Your task to perform on an android device: Show me recent news Image 0: 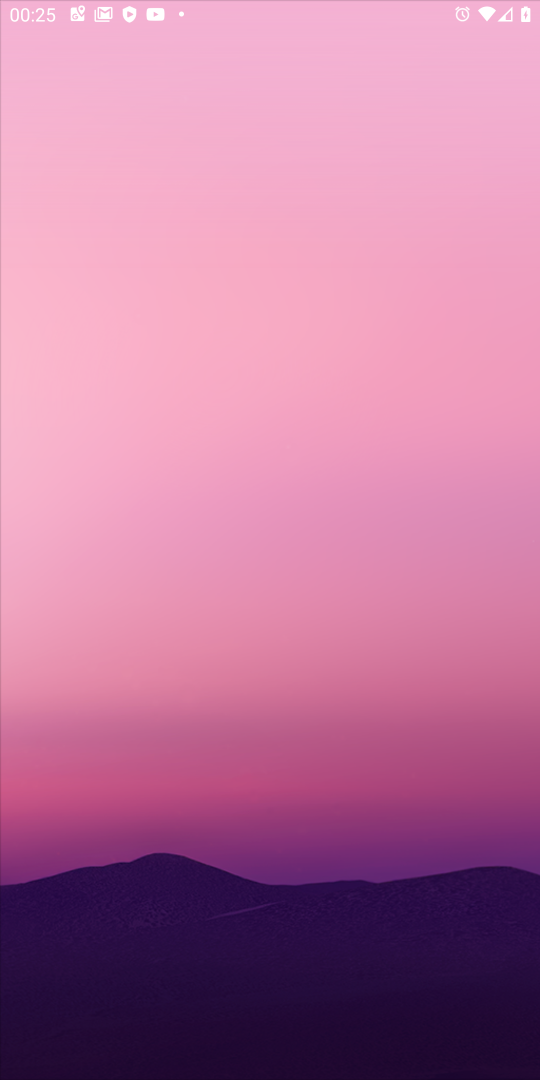
Step 0: press home button
Your task to perform on an android device: Show me recent news Image 1: 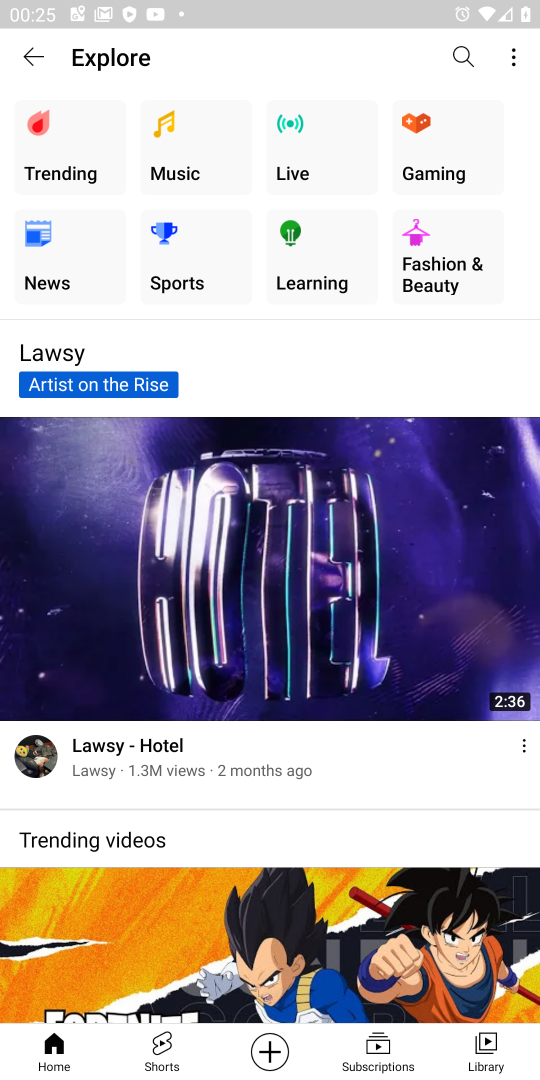
Step 1: press home button
Your task to perform on an android device: Show me recent news Image 2: 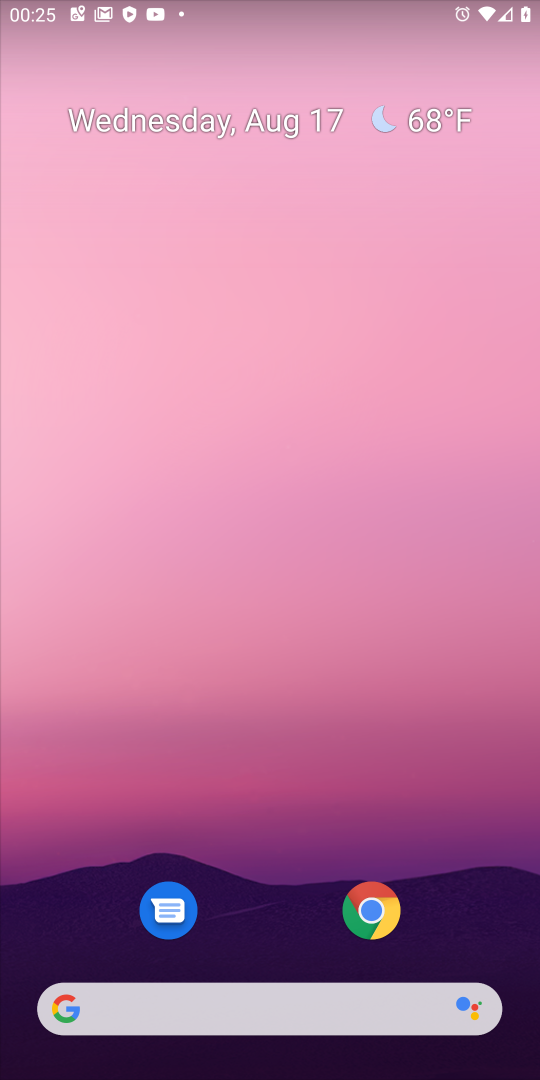
Step 2: drag from (260, 940) to (264, 163)
Your task to perform on an android device: Show me recent news Image 3: 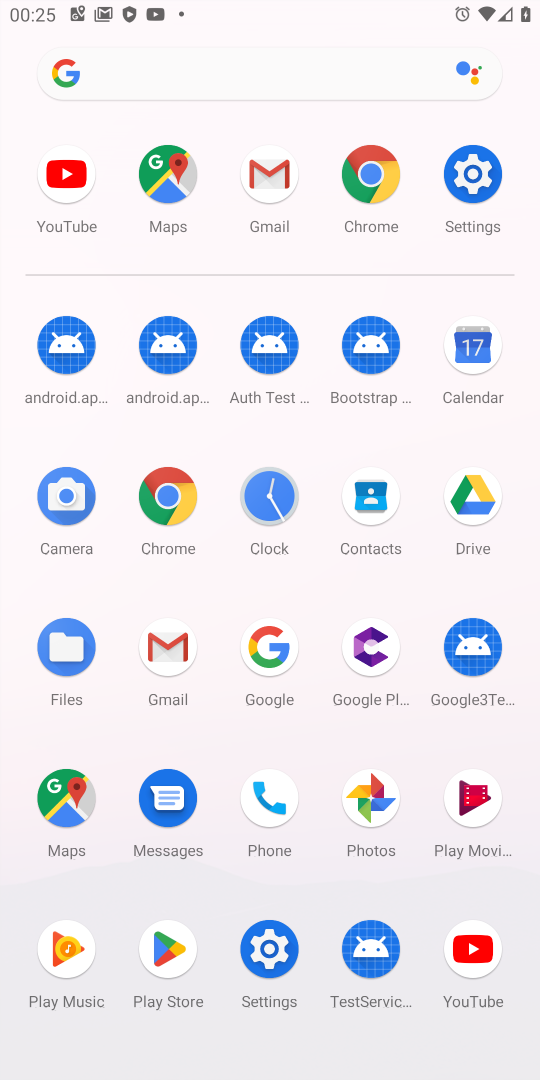
Step 3: click (164, 493)
Your task to perform on an android device: Show me recent news Image 4: 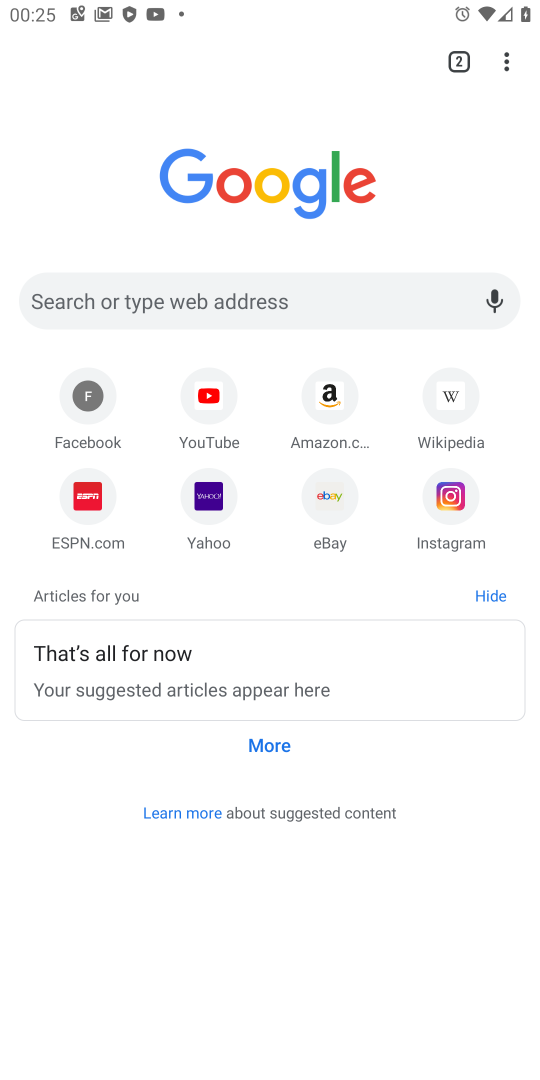
Step 4: click (337, 296)
Your task to perform on an android device: Show me recent news Image 5: 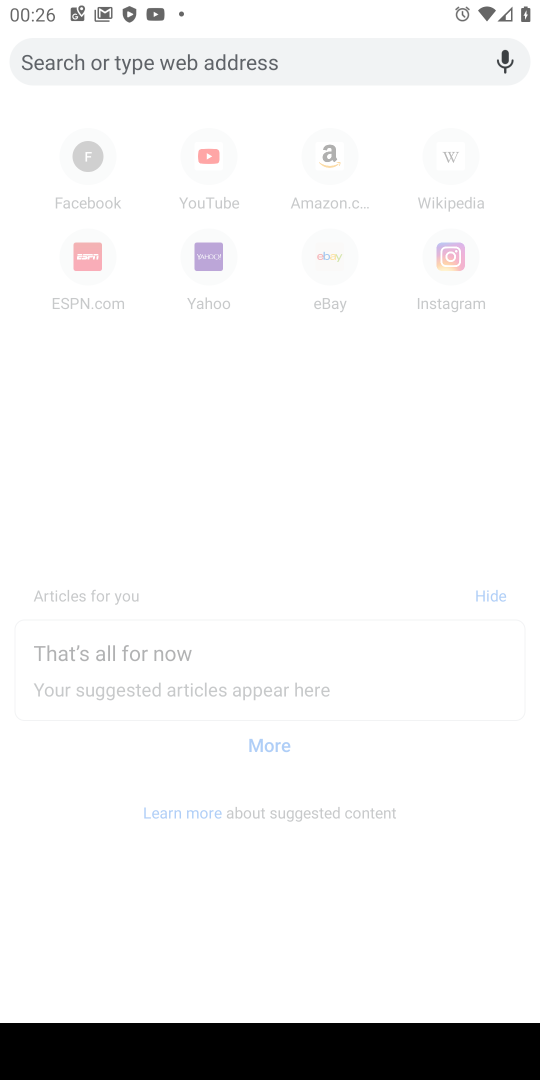
Step 5: type "news"
Your task to perform on an android device: Show me recent news Image 6: 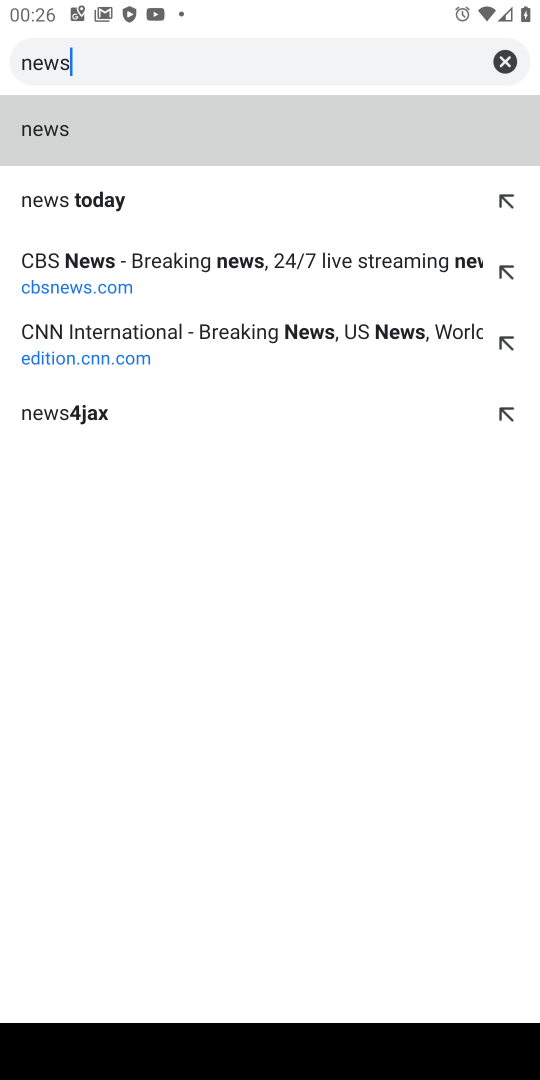
Step 6: click (65, 146)
Your task to perform on an android device: Show me recent news Image 7: 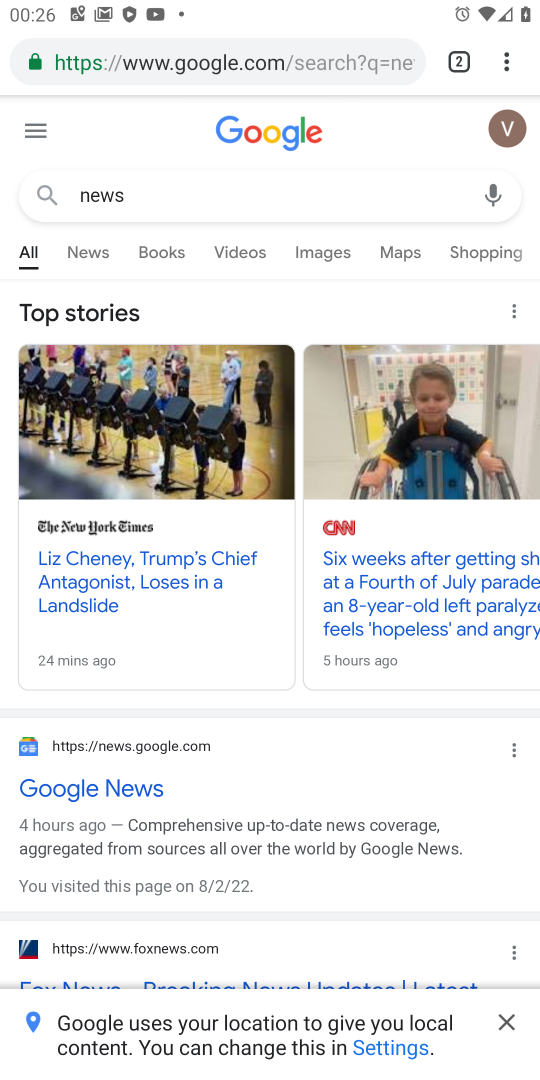
Step 7: click (98, 771)
Your task to perform on an android device: Show me recent news Image 8: 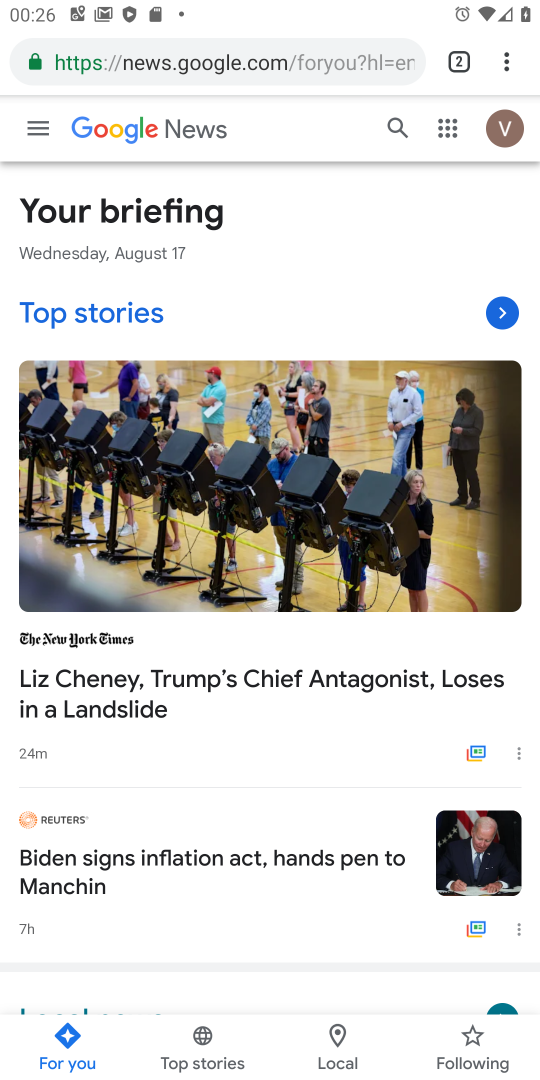
Step 8: task complete